Your task to perform on an android device: Open Google Chrome Image 0: 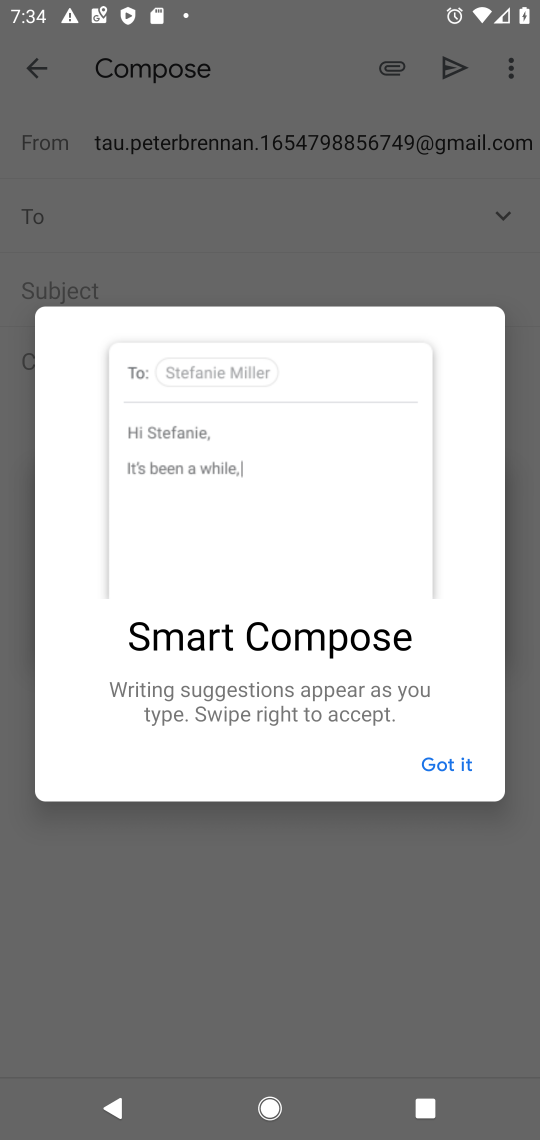
Step 0: press home button
Your task to perform on an android device: Open Google Chrome Image 1: 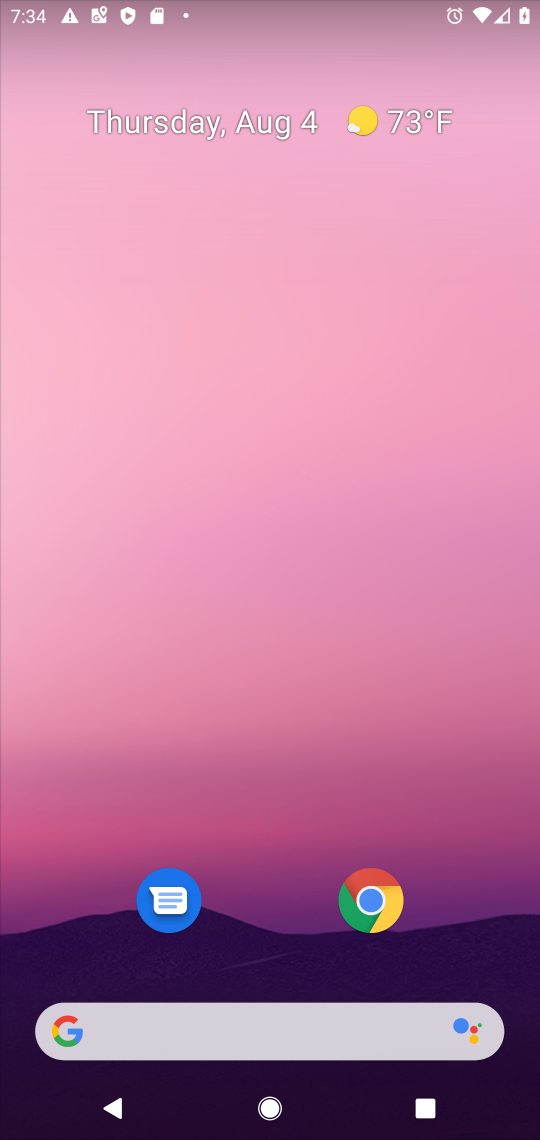
Step 1: click (370, 900)
Your task to perform on an android device: Open Google Chrome Image 2: 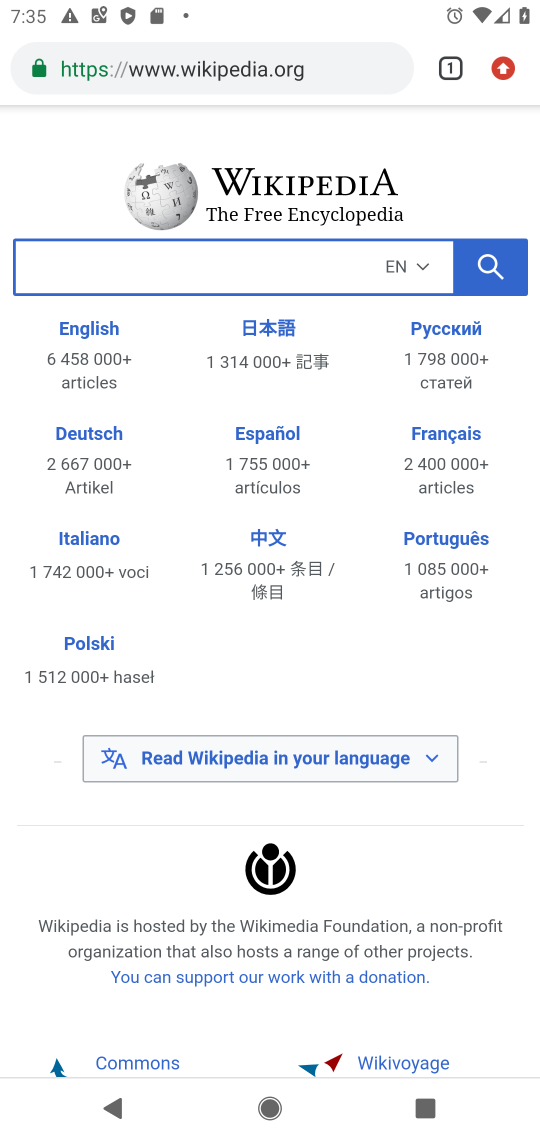
Step 2: task complete